Your task to perform on an android device: clear all cookies in the chrome app Image 0: 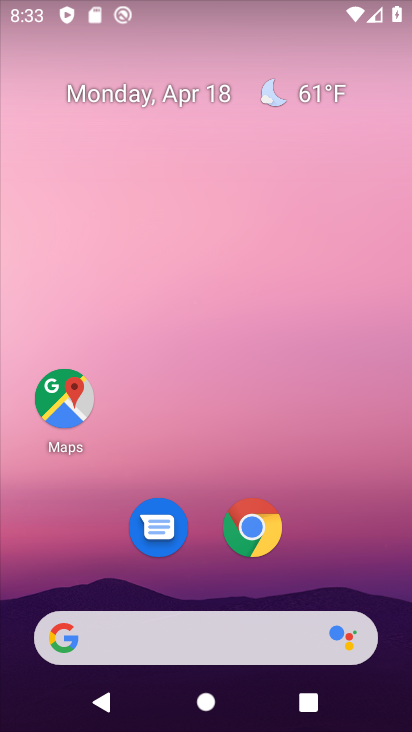
Step 0: click (247, 528)
Your task to perform on an android device: clear all cookies in the chrome app Image 1: 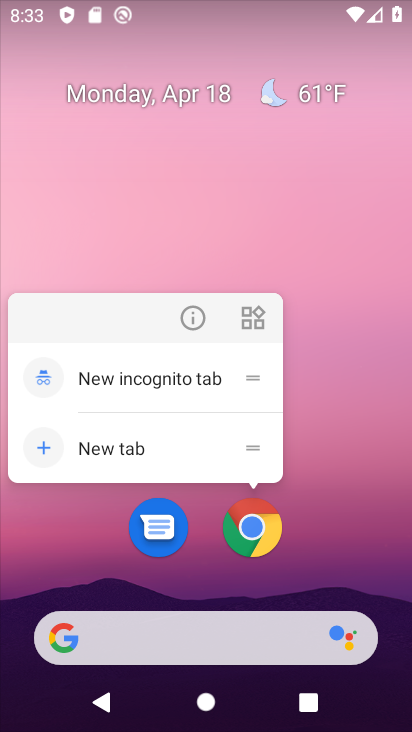
Step 1: click (256, 532)
Your task to perform on an android device: clear all cookies in the chrome app Image 2: 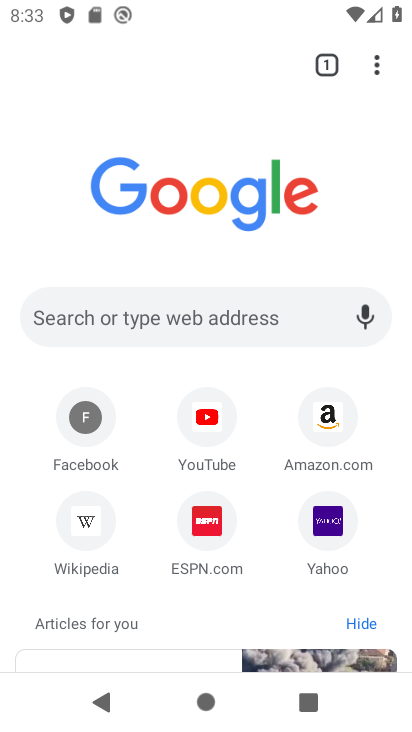
Step 2: click (377, 62)
Your task to perform on an android device: clear all cookies in the chrome app Image 3: 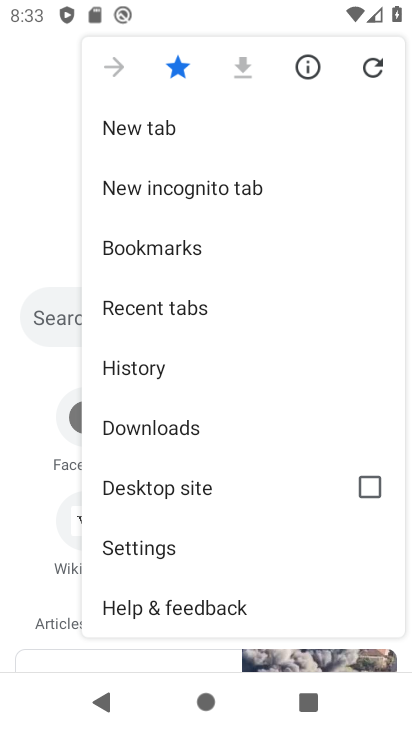
Step 3: click (142, 541)
Your task to perform on an android device: clear all cookies in the chrome app Image 4: 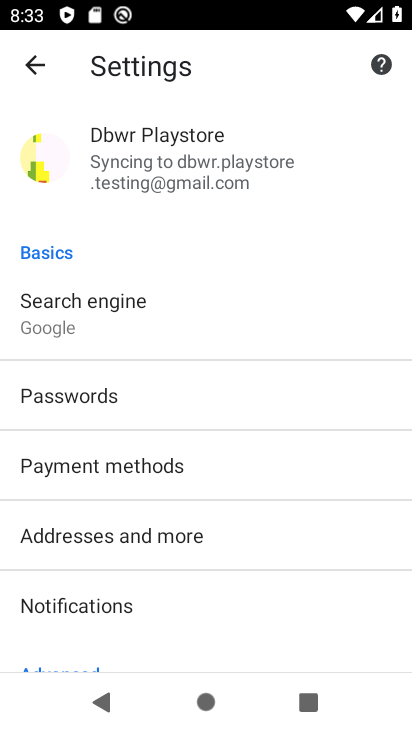
Step 4: drag from (190, 586) to (191, 213)
Your task to perform on an android device: clear all cookies in the chrome app Image 5: 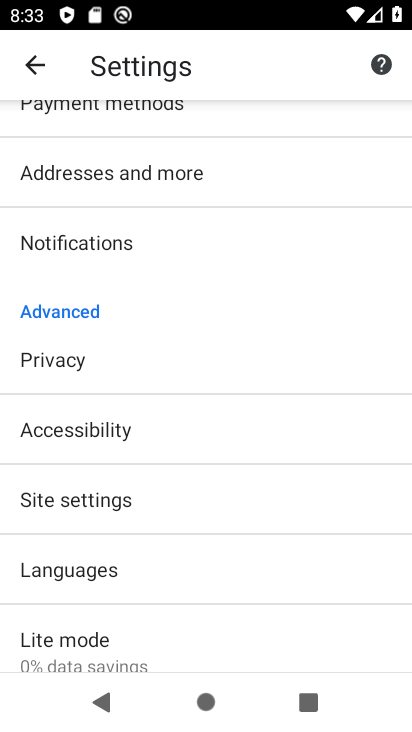
Step 5: click (30, 361)
Your task to perform on an android device: clear all cookies in the chrome app Image 6: 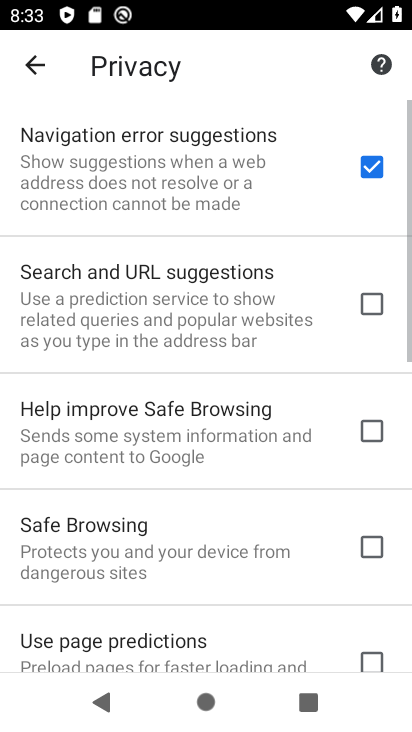
Step 6: drag from (213, 544) to (200, 149)
Your task to perform on an android device: clear all cookies in the chrome app Image 7: 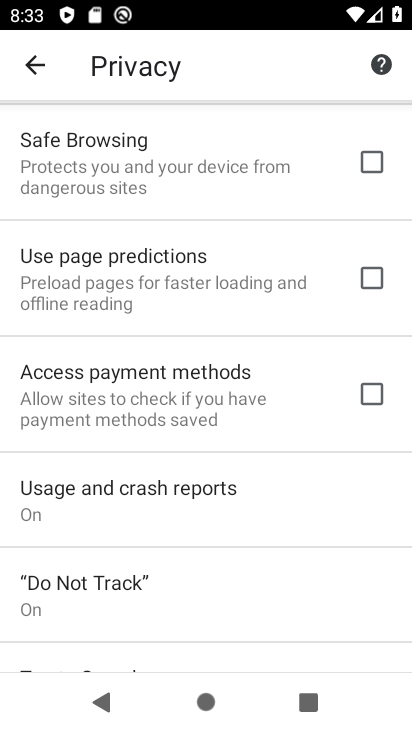
Step 7: drag from (162, 493) to (165, 151)
Your task to perform on an android device: clear all cookies in the chrome app Image 8: 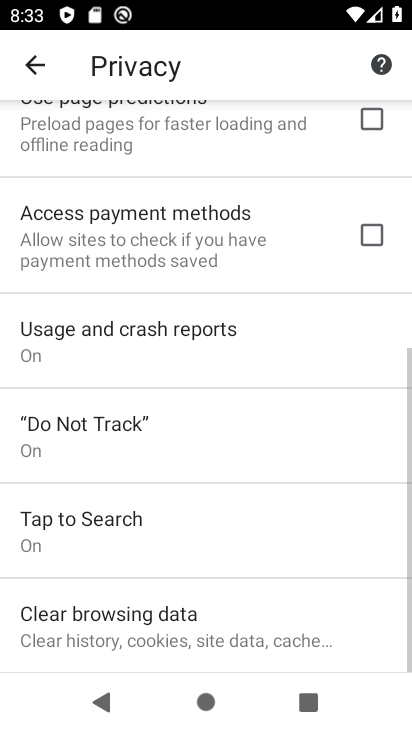
Step 8: click (111, 619)
Your task to perform on an android device: clear all cookies in the chrome app Image 9: 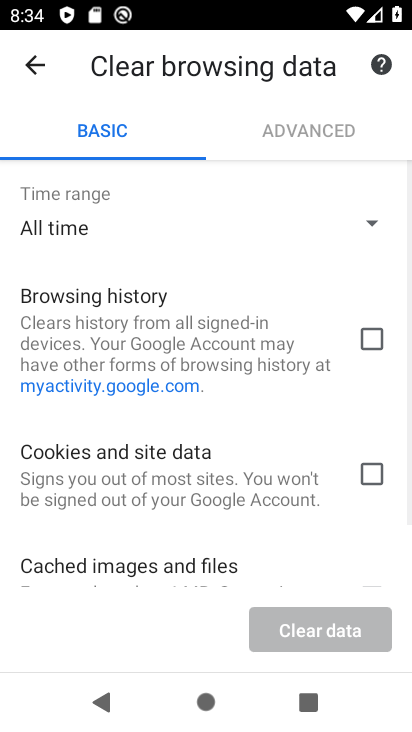
Step 9: click (369, 479)
Your task to perform on an android device: clear all cookies in the chrome app Image 10: 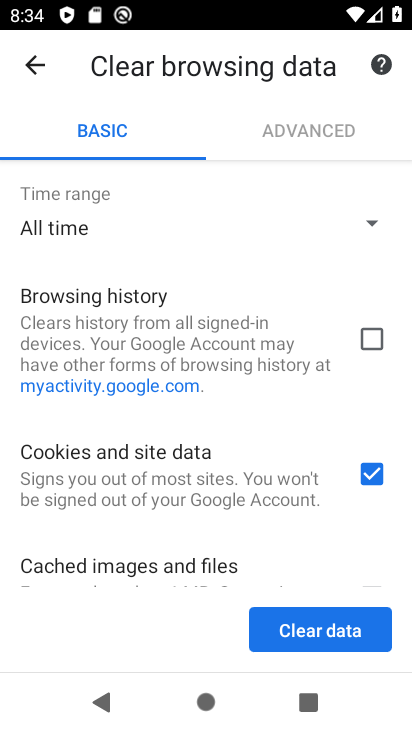
Step 10: drag from (247, 497) to (237, 330)
Your task to perform on an android device: clear all cookies in the chrome app Image 11: 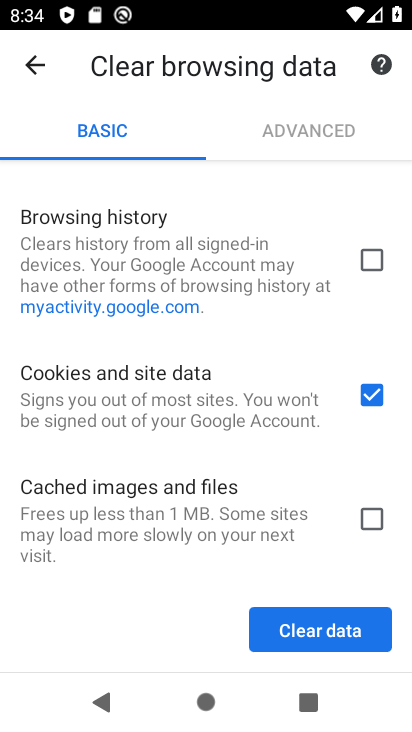
Step 11: click (304, 634)
Your task to perform on an android device: clear all cookies in the chrome app Image 12: 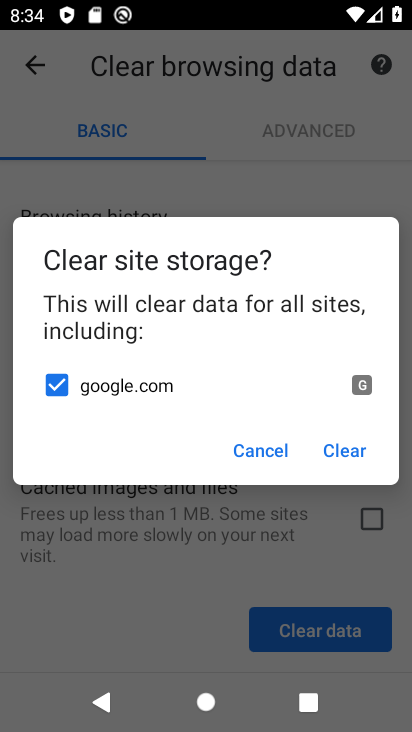
Step 12: click (327, 457)
Your task to perform on an android device: clear all cookies in the chrome app Image 13: 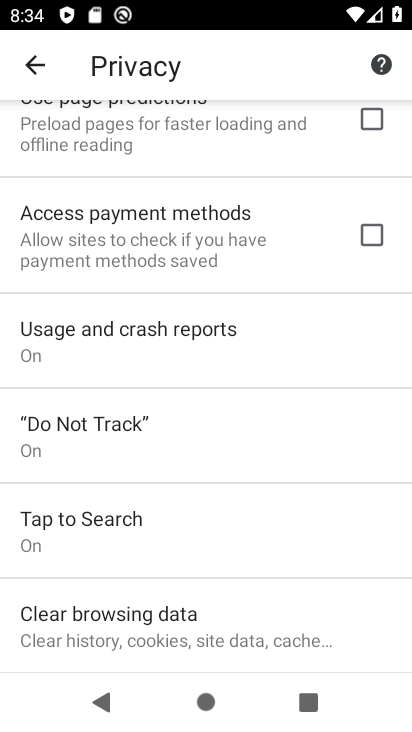
Step 13: task complete